Your task to perform on an android device: Empty the shopping cart on costco.com. Image 0: 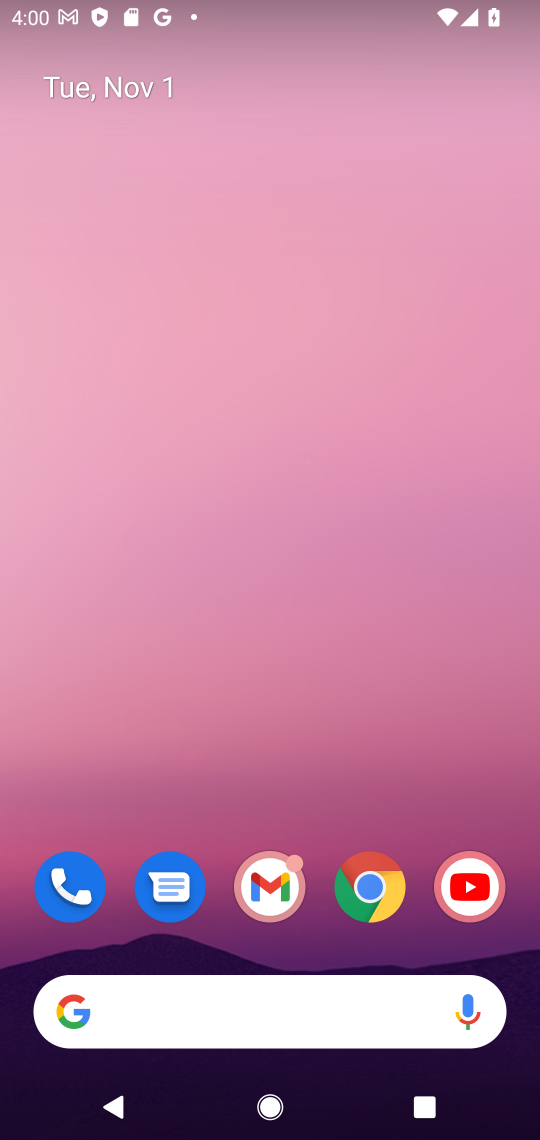
Step 0: drag from (320, 955) to (322, 121)
Your task to perform on an android device: Empty the shopping cart on costco.com. Image 1: 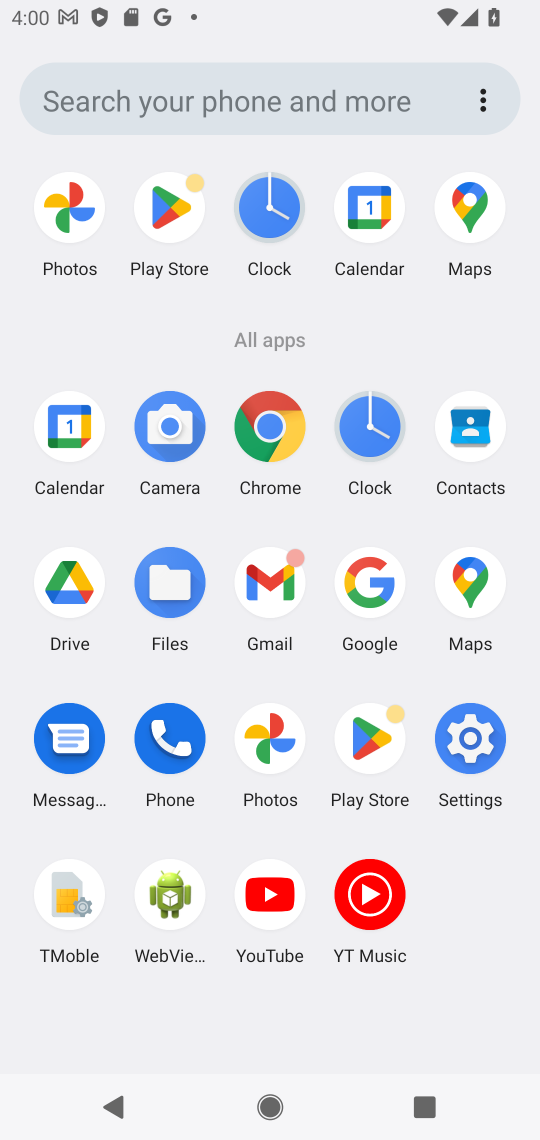
Step 1: click (269, 424)
Your task to perform on an android device: Empty the shopping cart on costco.com. Image 2: 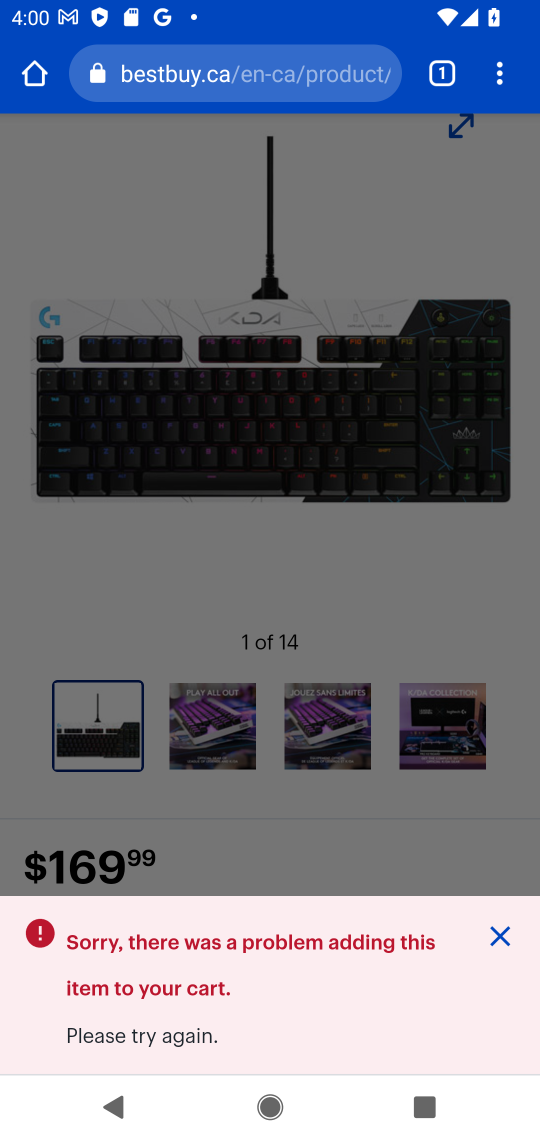
Step 2: click (305, 64)
Your task to perform on an android device: Empty the shopping cart on costco.com. Image 3: 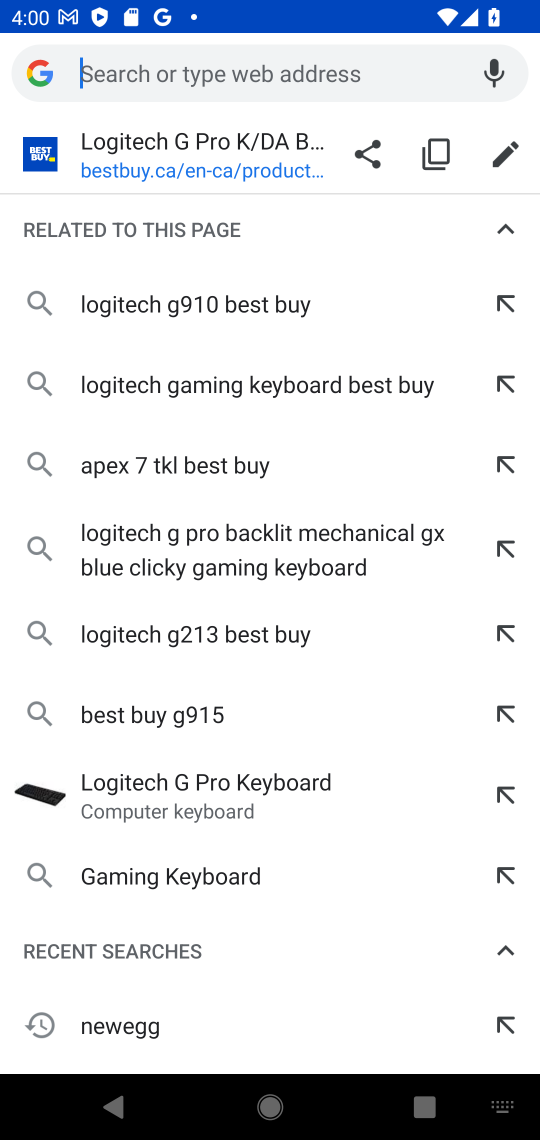
Step 3: type "costco.com"
Your task to perform on an android device: Empty the shopping cart on costco.com. Image 4: 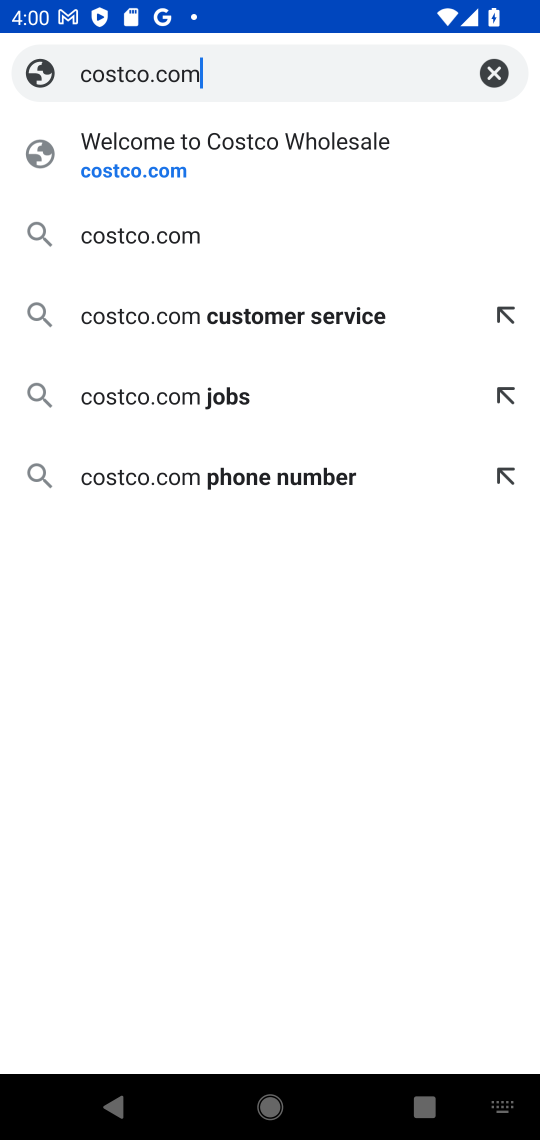
Step 4: press enter
Your task to perform on an android device: Empty the shopping cart on costco.com. Image 5: 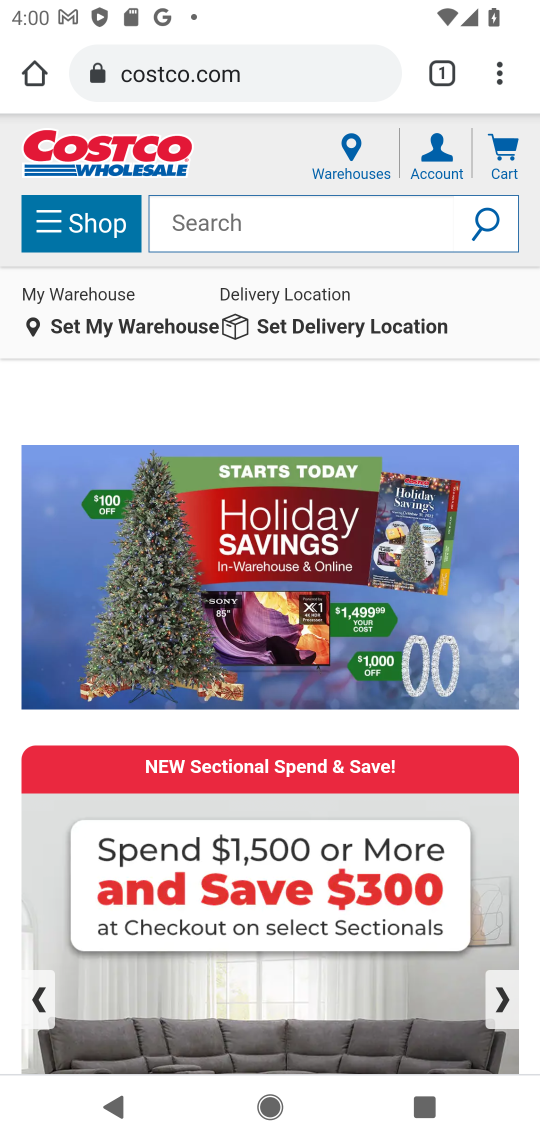
Step 5: click (507, 135)
Your task to perform on an android device: Empty the shopping cart on costco.com. Image 6: 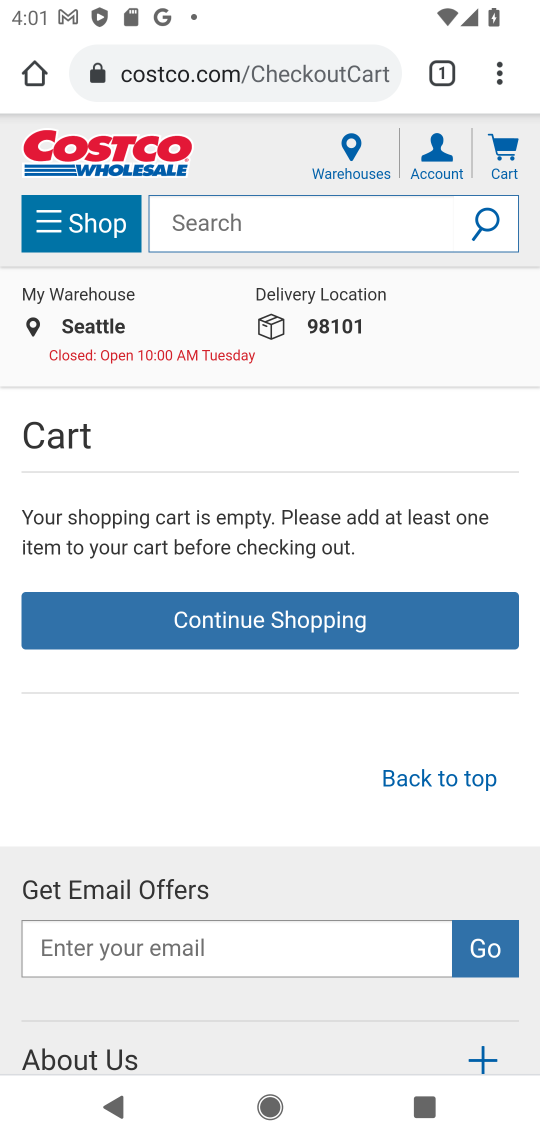
Step 6: task complete